Your task to perform on an android device: Play the last video I watched on Youtube Image 0: 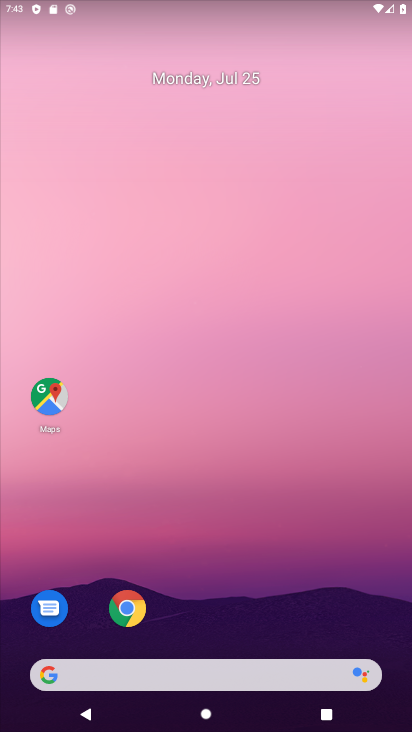
Step 0: drag from (195, 626) to (263, 130)
Your task to perform on an android device: Play the last video I watched on Youtube Image 1: 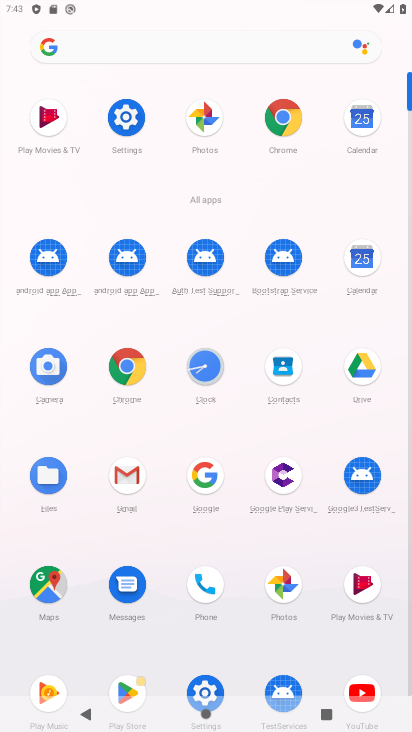
Step 1: click (360, 680)
Your task to perform on an android device: Play the last video I watched on Youtube Image 2: 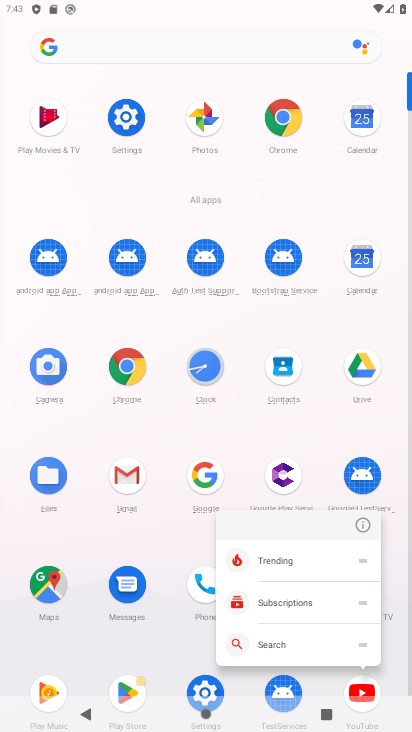
Step 2: click (365, 530)
Your task to perform on an android device: Play the last video I watched on Youtube Image 3: 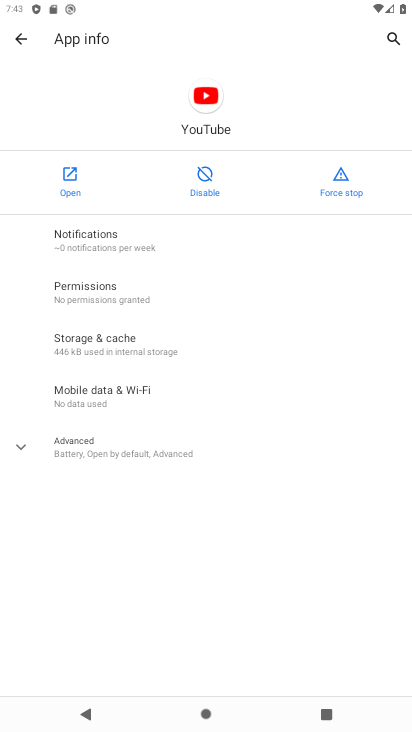
Step 3: click (77, 178)
Your task to perform on an android device: Play the last video I watched on Youtube Image 4: 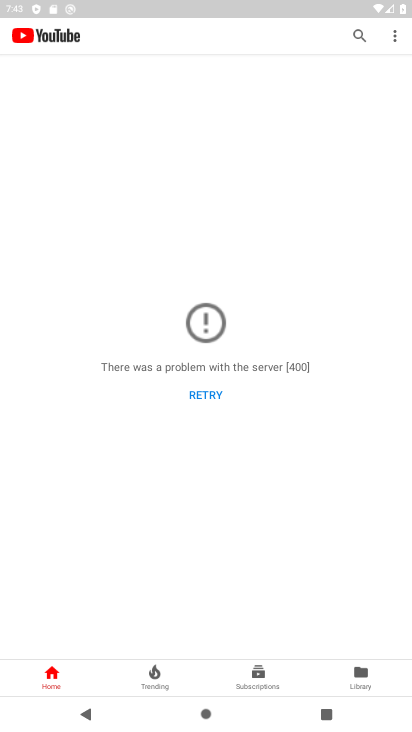
Step 4: click (203, 390)
Your task to perform on an android device: Play the last video I watched on Youtube Image 5: 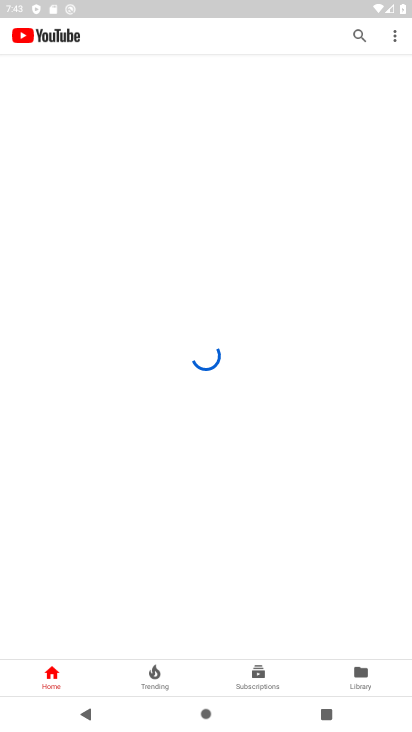
Step 5: drag from (232, 617) to (250, 241)
Your task to perform on an android device: Play the last video I watched on Youtube Image 6: 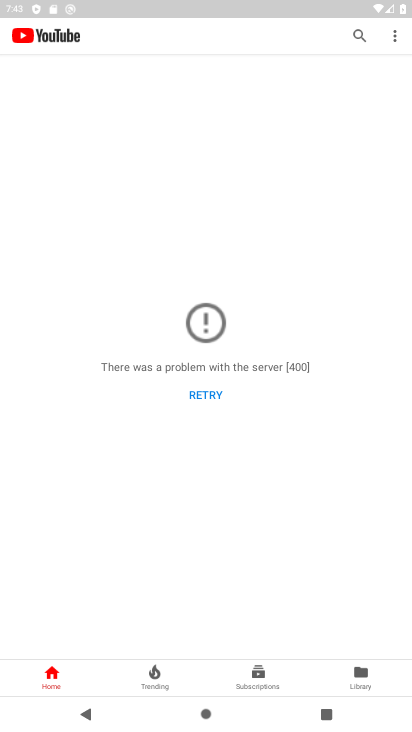
Step 6: drag from (251, 619) to (295, 311)
Your task to perform on an android device: Play the last video I watched on Youtube Image 7: 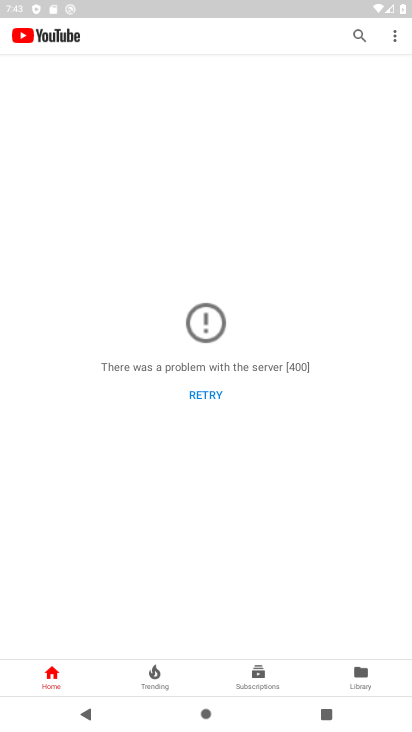
Step 7: click (361, 665)
Your task to perform on an android device: Play the last video I watched on Youtube Image 8: 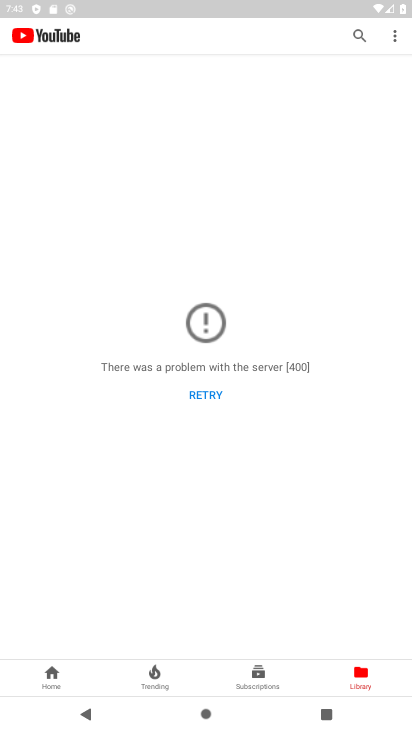
Step 8: click (351, 658)
Your task to perform on an android device: Play the last video I watched on Youtube Image 9: 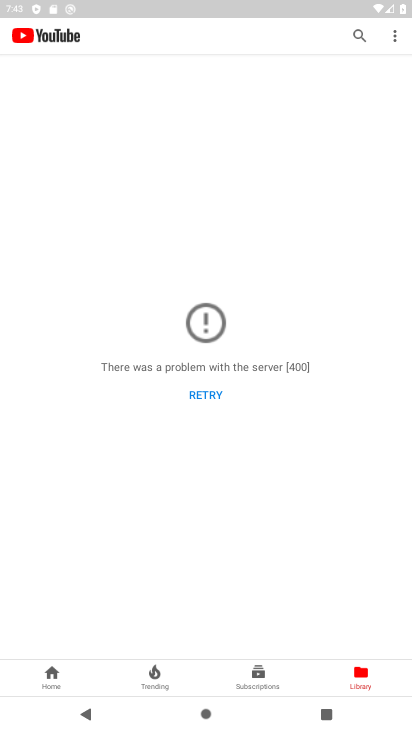
Step 9: click (359, 676)
Your task to perform on an android device: Play the last video I watched on Youtube Image 10: 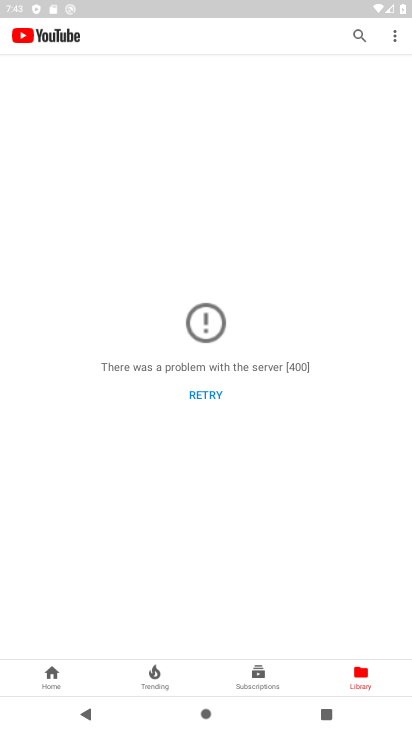
Step 10: click (359, 676)
Your task to perform on an android device: Play the last video I watched on Youtube Image 11: 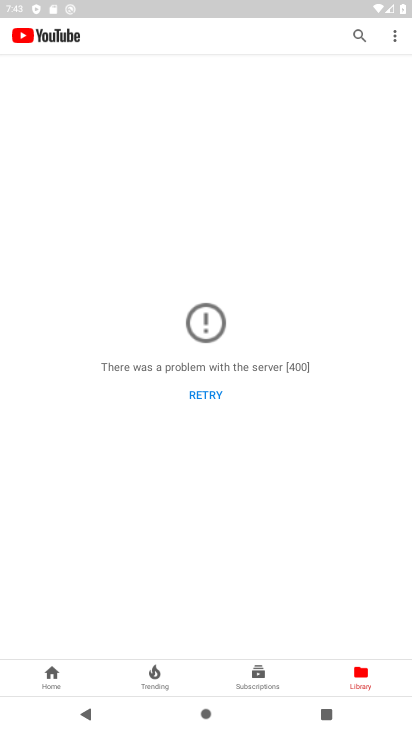
Step 11: click (360, 676)
Your task to perform on an android device: Play the last video I watched on Youtube Image 12: 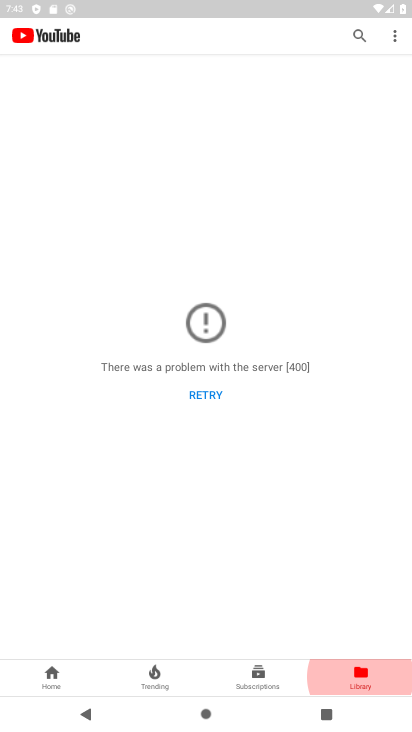
Step 12: click (360, 676)
Your task to perform on an android device: Play the last video I watched on Youtube Image 13: 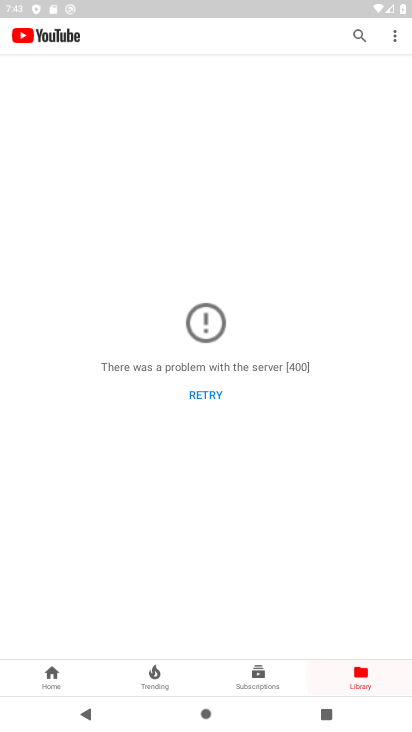
Step 13: click (361, 676)
Your task to perform on an android device: Play the last video I watched on Youtube Image 14: 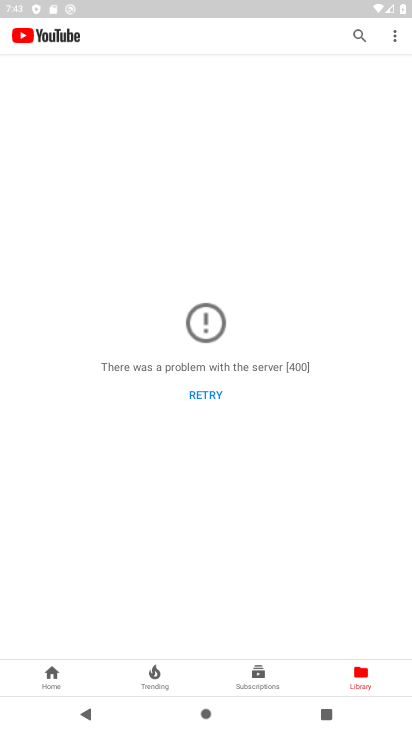
Step 14: click (361, 676)
Your task to perform on an android device: Play the last video I watched on Youtube Image 15: 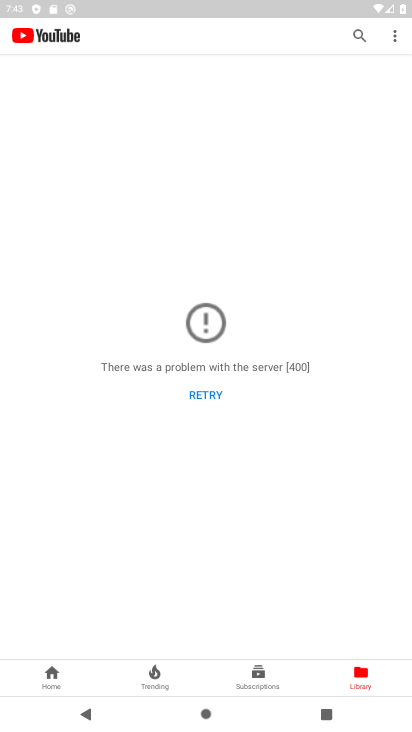
Step 15: click (361, 676)
Your task to perform on an android device: Play the last video I watched on Youtube Image 16: 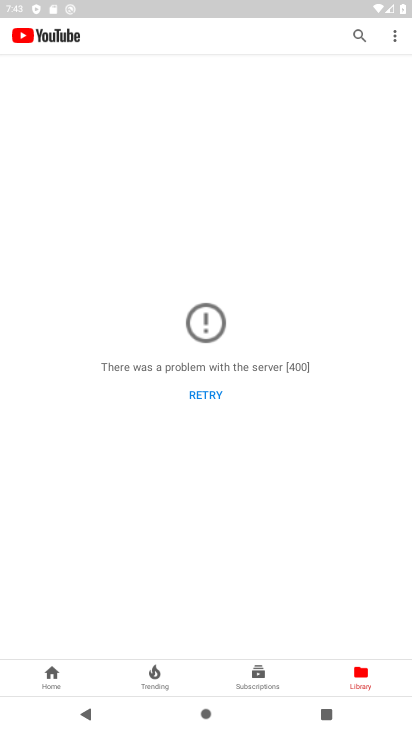
Step 16: click (361, 676)
Your task to perform on an android device: Play the last video I watched on Youtube Image 17: 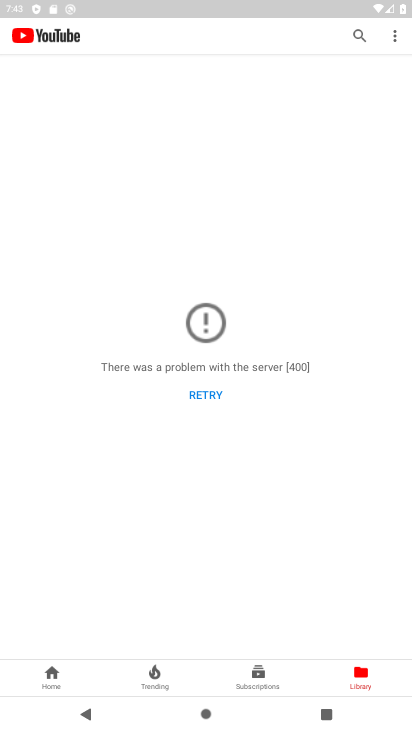
Step 17: click (359, 672)
Your task to perform on an android device: Play the last video I watched on Youtube Image 18: 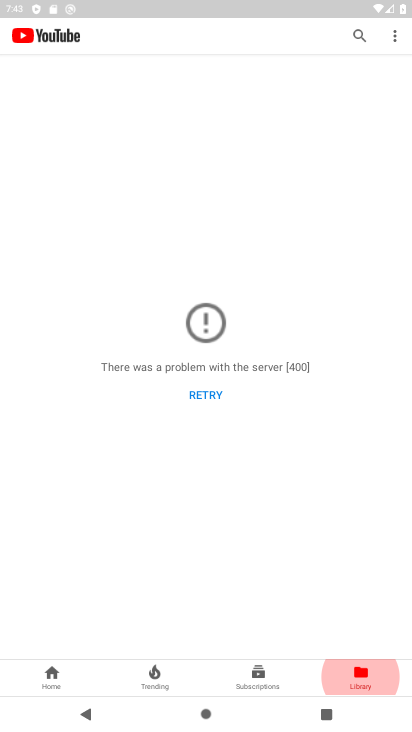
Step 18: click (359, 672)
Your task to perform on an android device: Play the last video I watched on Youtube Image 19: 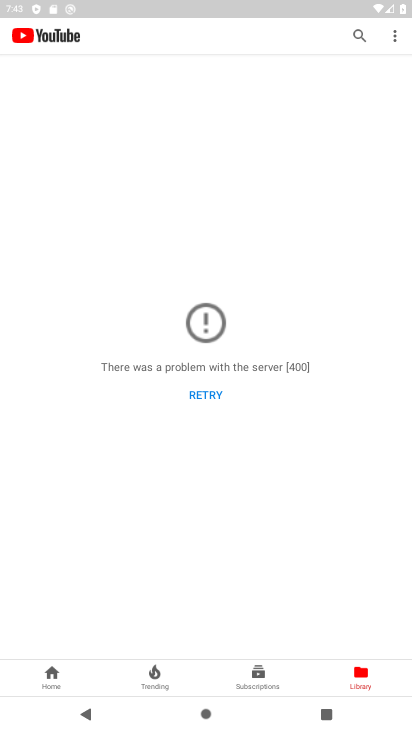
Step 19: click (363, 673)
Your task to perform on an android device: Play the last video I watched on Youtube Image 20: 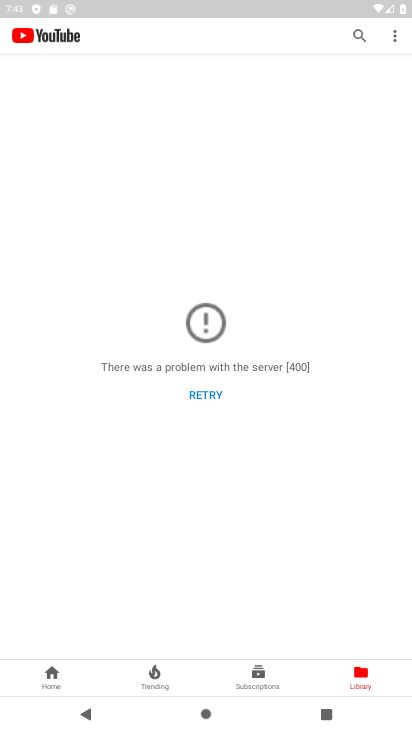
Step 20: task complete